Your task to perform on an android device: find photos in the google photos app Image 0: 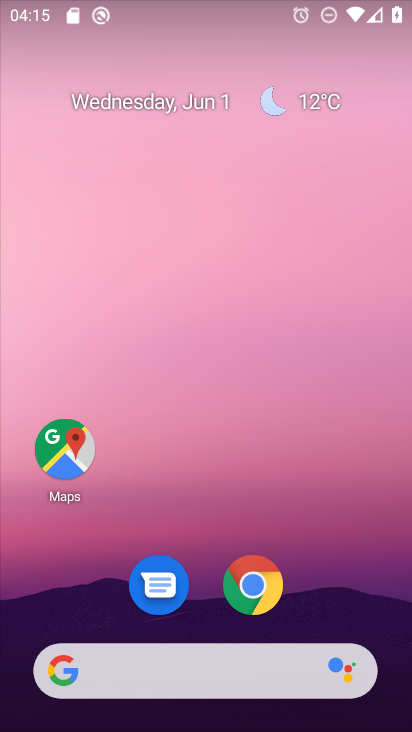
Step 0: drag from (226, 509) to (185, 27)
Your task to perform on an android device: find photos in the google photos app Image 1: 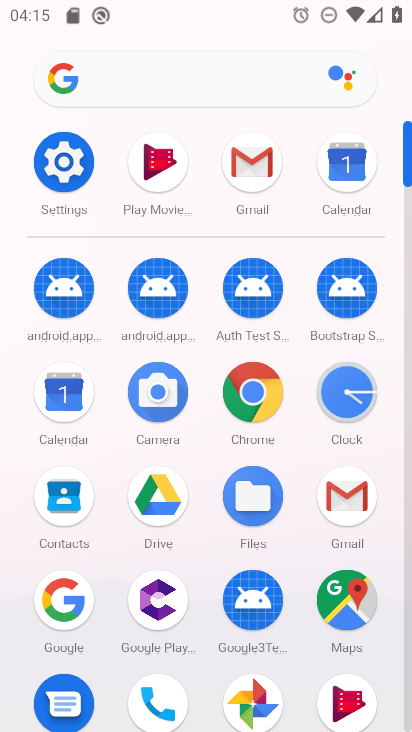
Step 1: click (259, 692)
Your task to perform on an android device: find photos in the google photos app Image 2: 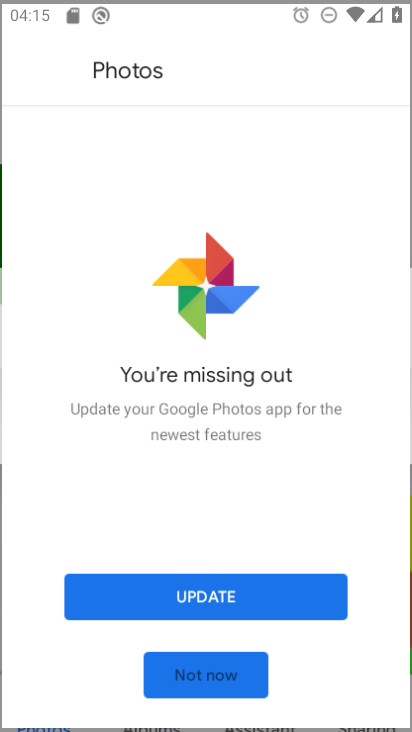
Step 2: click (59, 693)
Your task to perform on an android device: find photos in the google photos app Image 3: 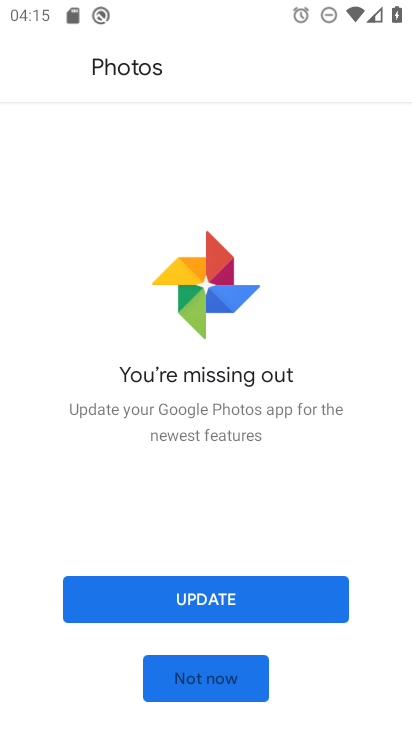
Step 3: click (186, 678)
Your task to perform on an android device: find photos in the google photos app Image 4: 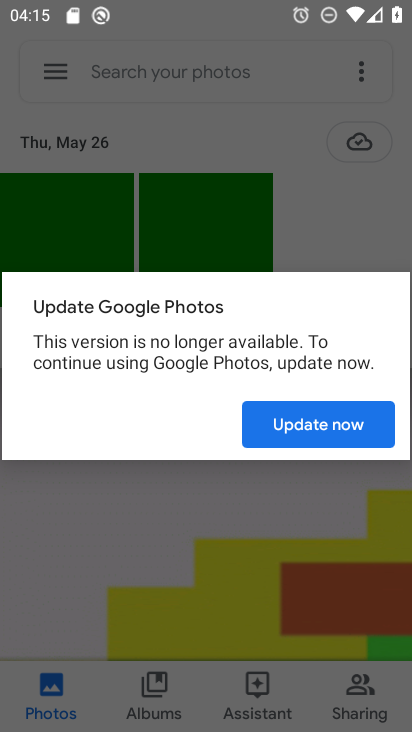
Step 4: click (299, 430)
Your task to perform on an android device: find photos in the google photos app Image 5: 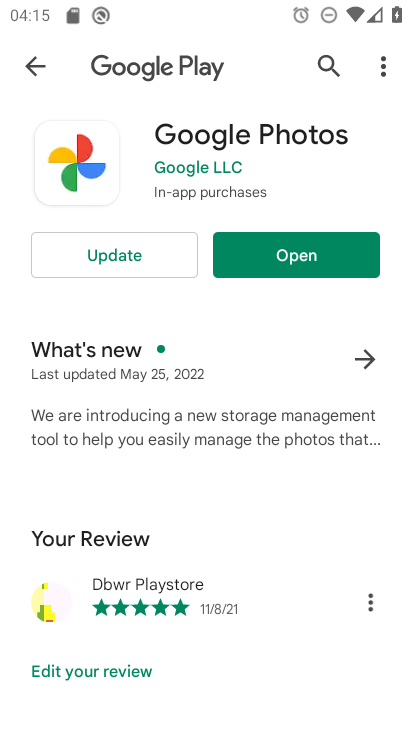
Step 5: click (323, 242)
Your task to perform on an android device: find photos in the google photos app Image 6: 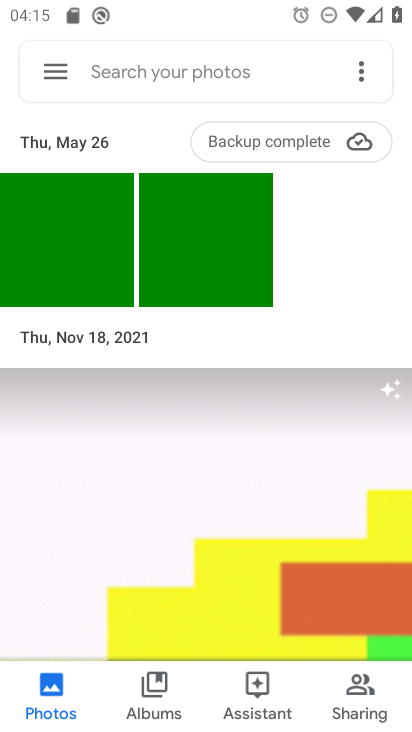
Step 6: click (45, 708)
Your task to perform on an android device: find photos in the google photos app Image 7: 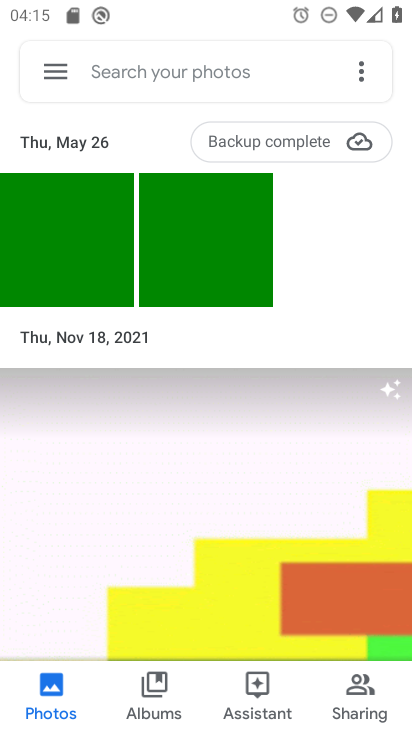
Step 7: task complete